Your task to perform on an android device: Do I have any events this weekend? Image 0: 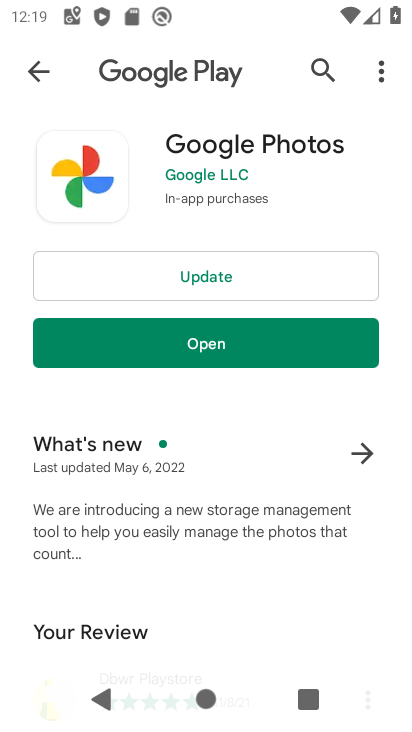
Step 0: press home button
Your task to perform on an android device: Do I have any events this weekend? Image 1: 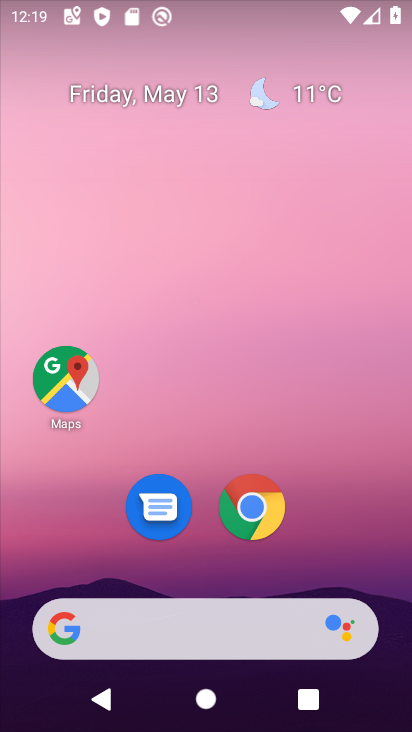
Step 1: drag from (201, 577) to (154, 36)
Your task to perform on an android device: Do I have any events this weekend? Image 2: 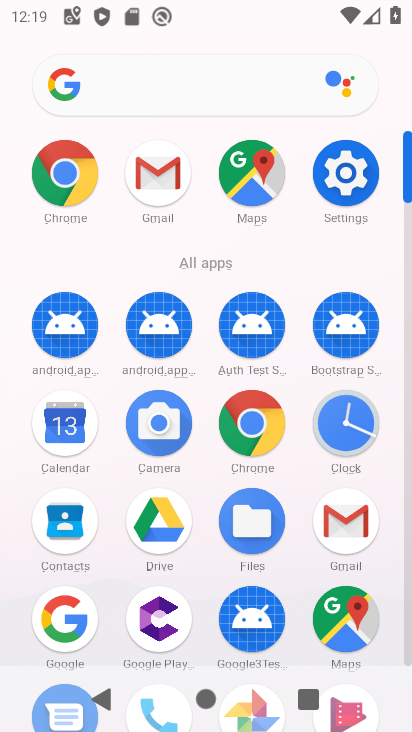
Step 2: click (78, 418)
Your task to perform on an android device: Do I have any events this weekend? Image 3: 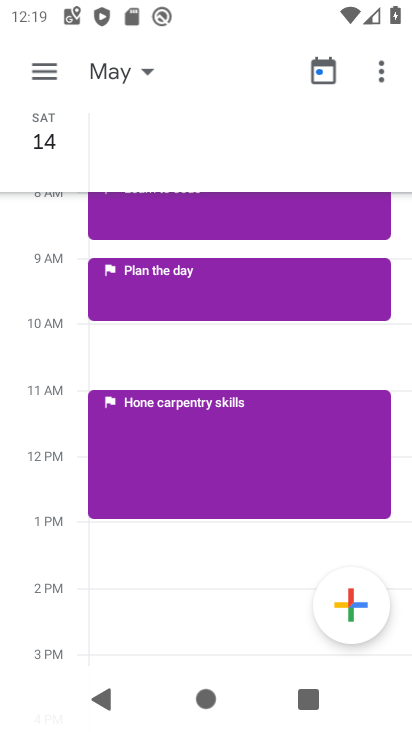
Step 3: click (56, 62)
Your task to perform on an android device: Do I have any events this weekend? Image 4: 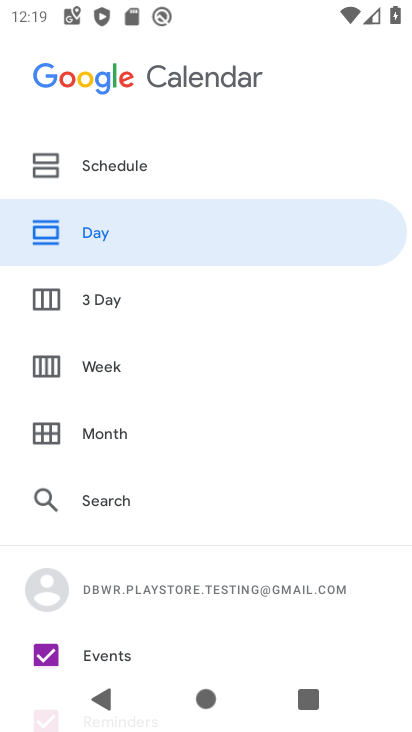
Step 4: click (105, 365)
Your task to perform on an android device: Do I have any events this weekend? Image 5: 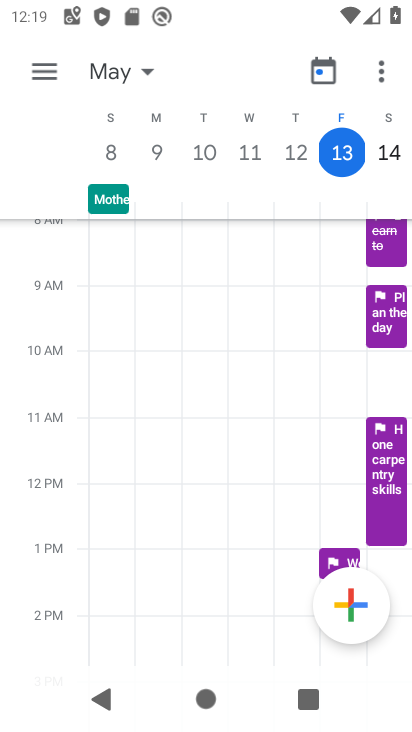
Step 5: task complete